Your task to perform on an android device: Go to accessibility settings Image 0: 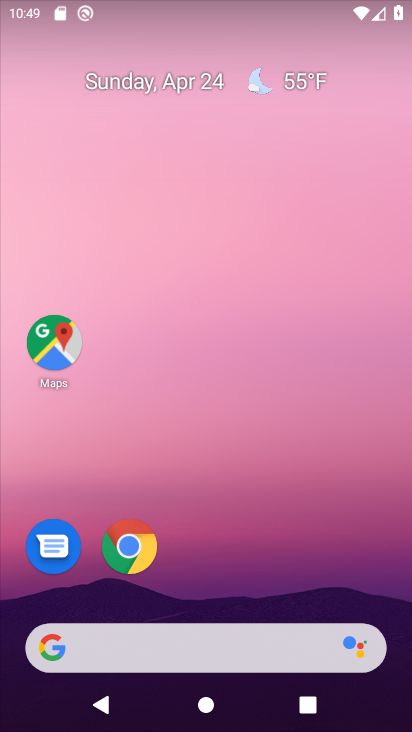
Step 0: drag from (246, 507) to (216, 44)
Your task to perform on an android device: Go to accessibility settings Image 1: 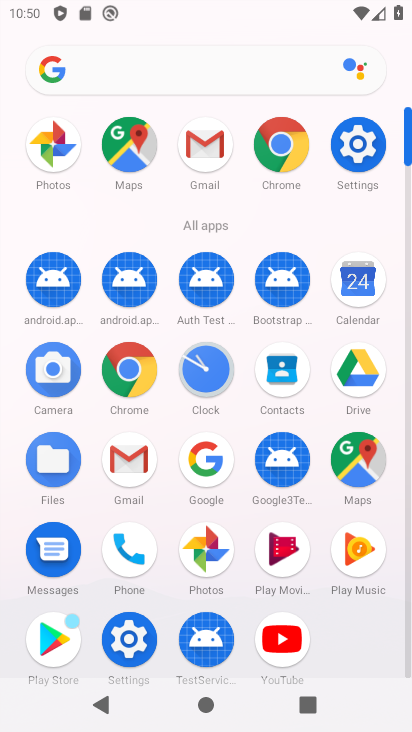
Step 1: click (358, 142)
Your task to perform on an android device: Go to accessibility settings Image 2: 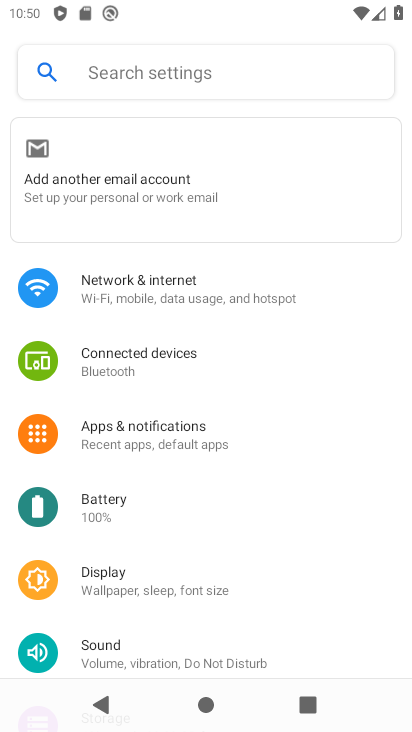
Step 2: drag from (183, 521) to (231, 419)
Your task to perform on an android device: Go to accessibility settings Image 3: 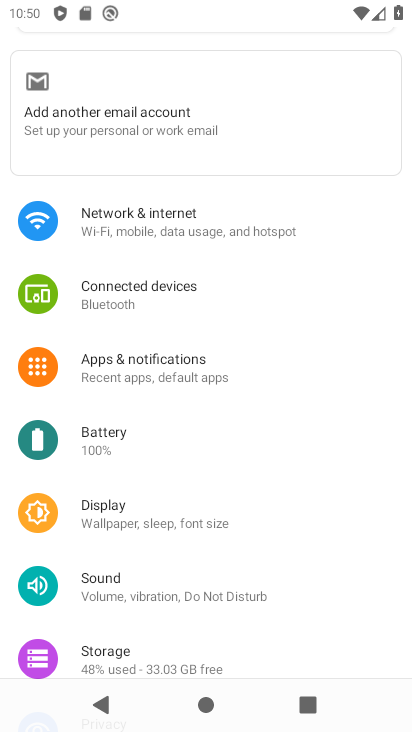
Step 3: drag from (157, 534) to (203, 452)
Your task to perform on an android device: Go to accessibility settings Image 4: 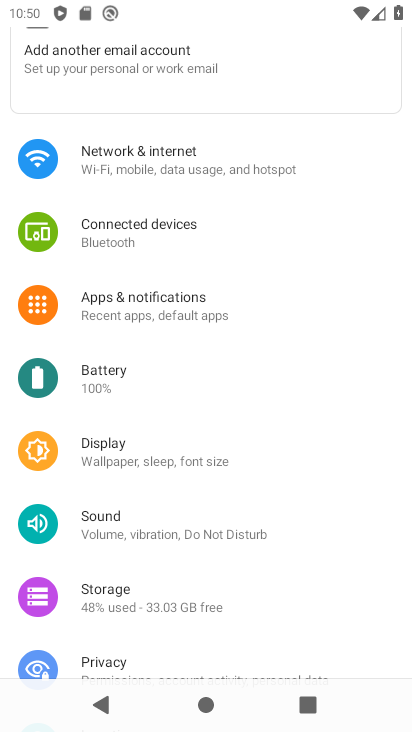
Step 4: drag from (131, 558) to (198, 460)
Your task to perform on an android device: Go to accessibility settings Image 5: 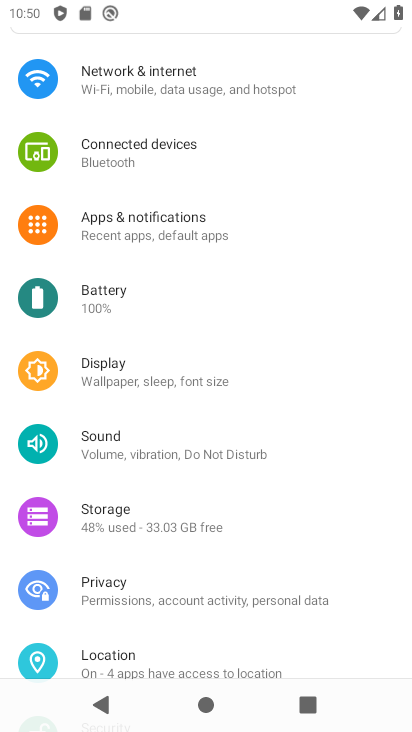
Step 5: drag from (135, 552) to (181, 470)
Your task to perform on an android device: Go to accessibility settings Image 6: 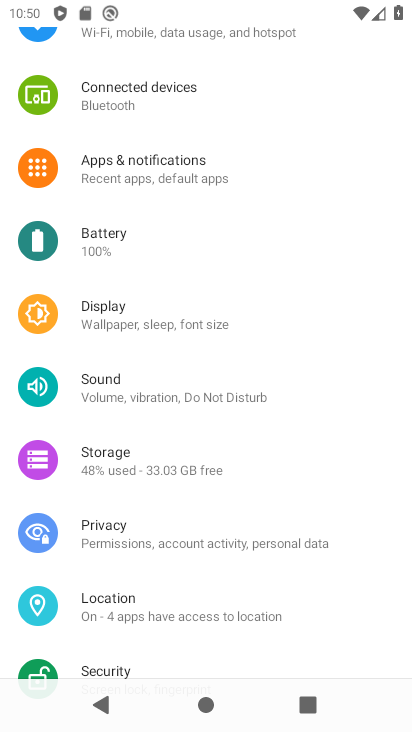
Step 6: drag from (116, 575) to (156, 501)
Your task to perform on an android device: Go to accessibility settings Image 7: 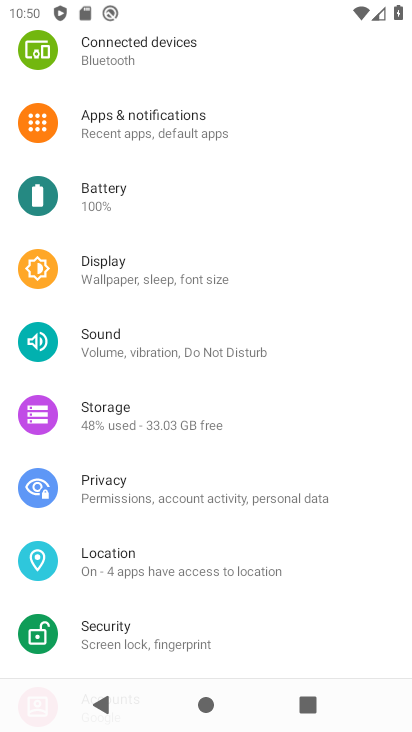
Step 7: drag from (98, 600) to (155, 483)
Your task to perform on an android device: Go to accessibility settings Image 8: 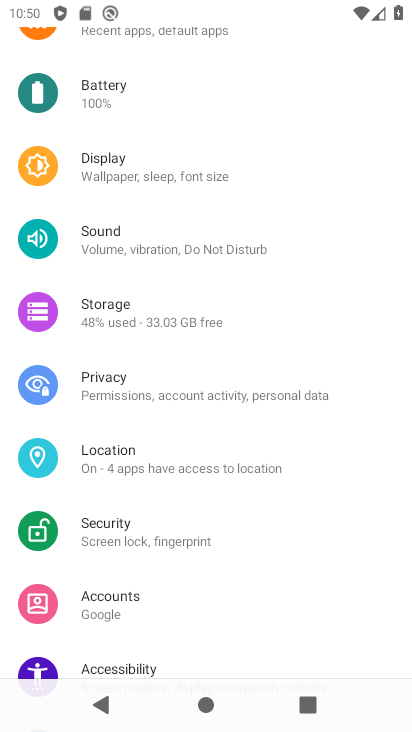
Step 8: drag from (109, 569) to (169, 460)
Your task to perform on an android device: Go to accessibility settings Image 9: 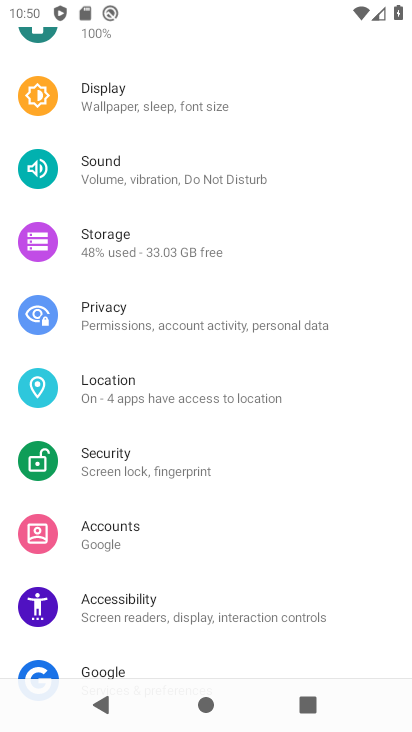
Step 9: click (130, 593)
Your task to perform on an android device: Go to accessibility settings Image 10: 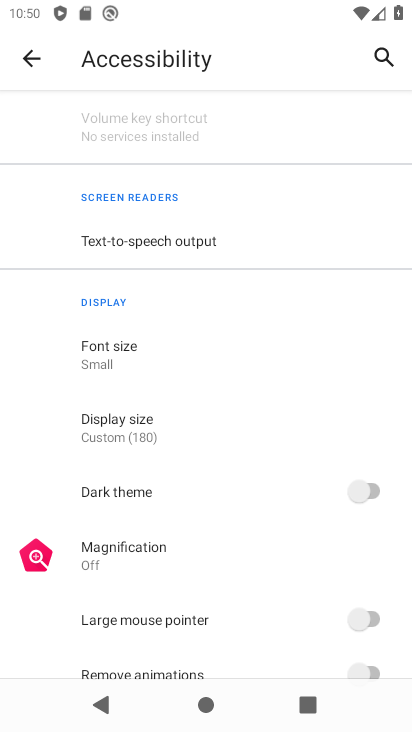
Step 10: task complete